Your task to perform on an android device: visit the assistant section in the google photos Image 0: 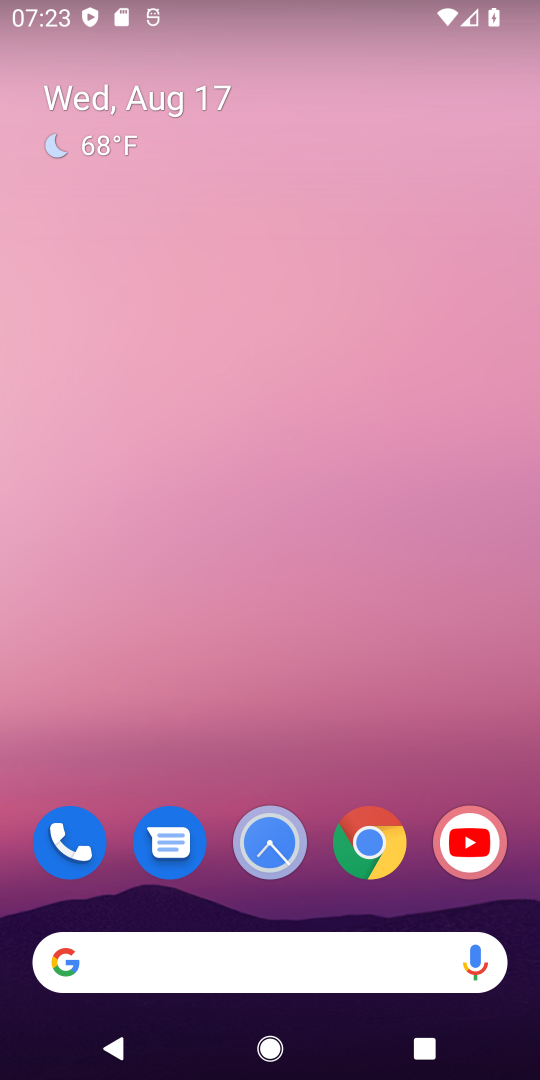
Step 0: drag from (262, 743) to (353, 0)
Your task to perform on an android device: visit the assistant section in the google photos Image 1: 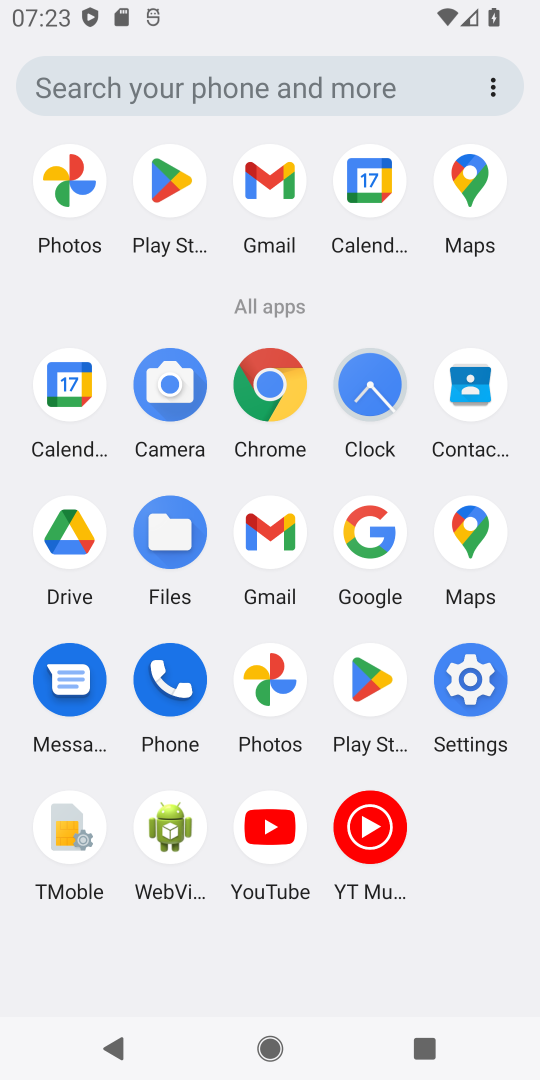
Step 1: click (269, 680)
Your task to perform on an android device: visit the assistant section in the google photos Image 2: 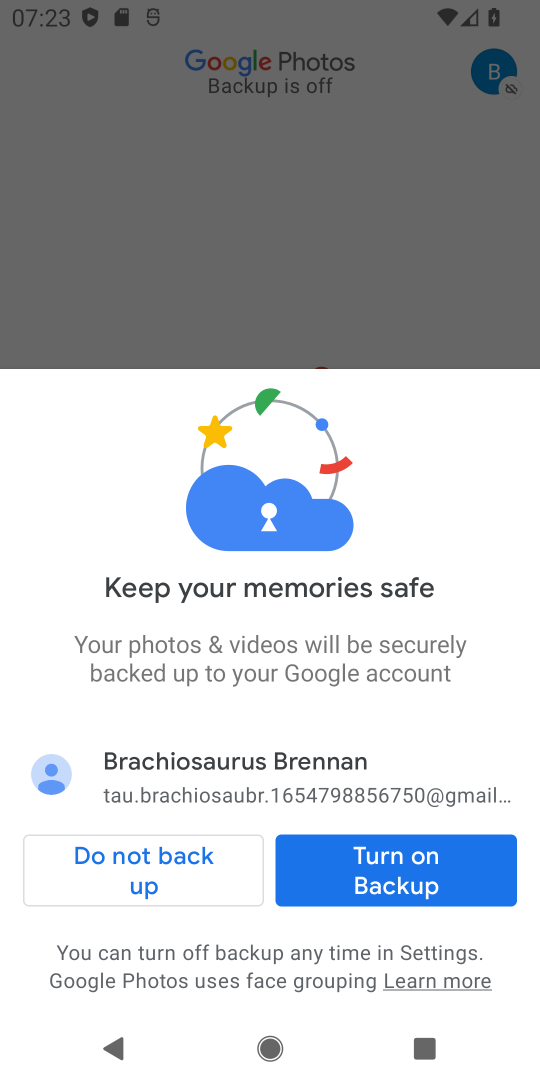
Step 2: click (402, 863)
Your task to perform on an android device: visit the assistant section in the google photos Image 3: 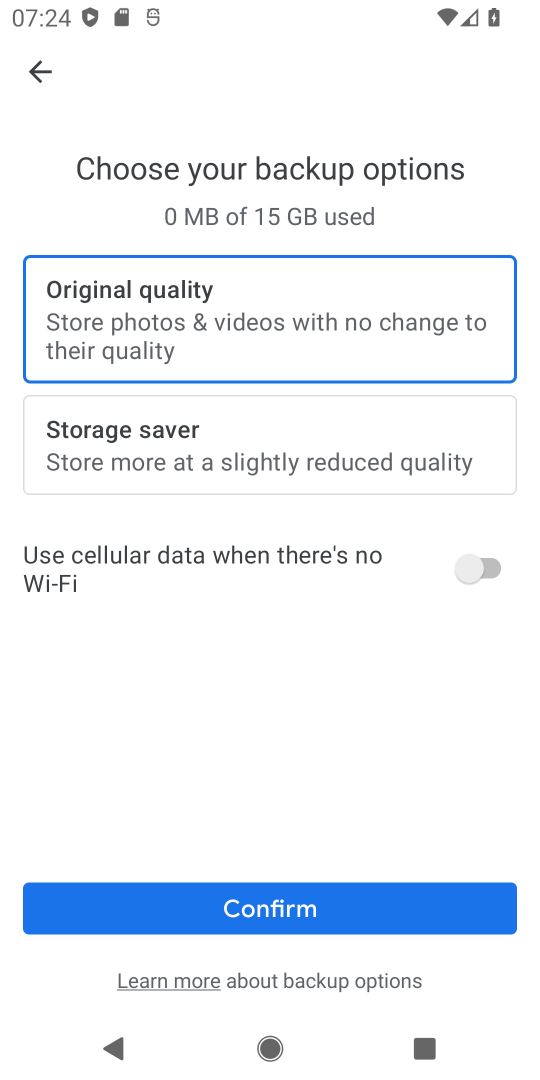
Step 3: click (404, 912)
Your task to perform on an android device: visit the assistant section in the google photos Image 4: 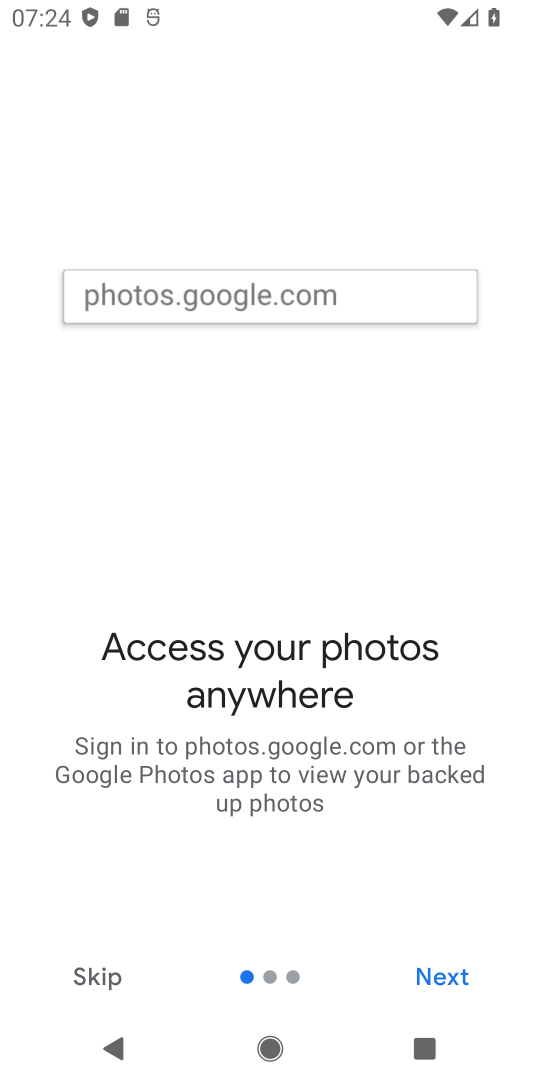
Step 4: click (438, 972)
Your task to perform on an android device: visit the assistant section in the google photos Image 5: 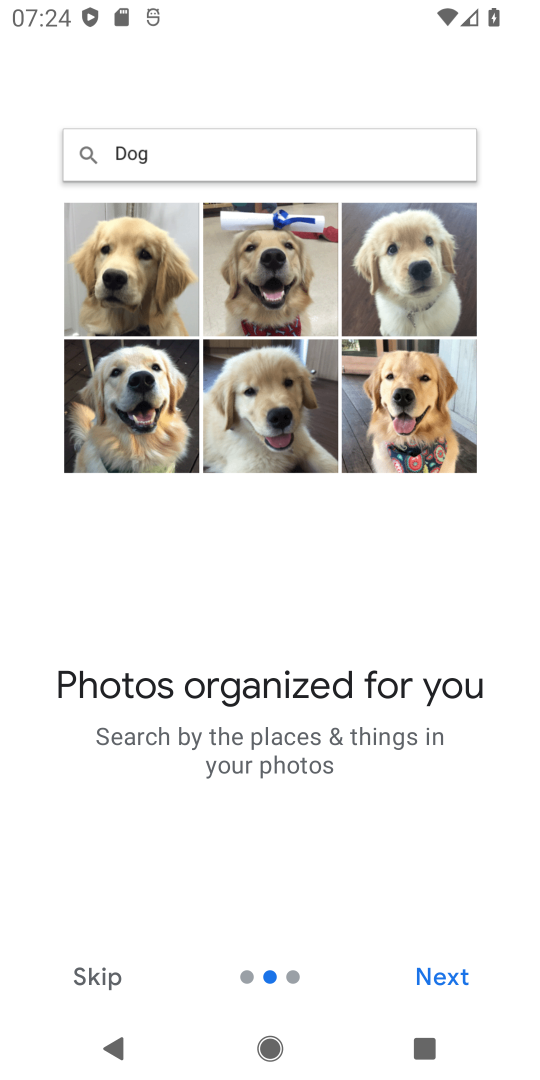
Step 5: click (438, 969)
Your task to perform on an android device: visit the assistant section in the google photos Image 6: 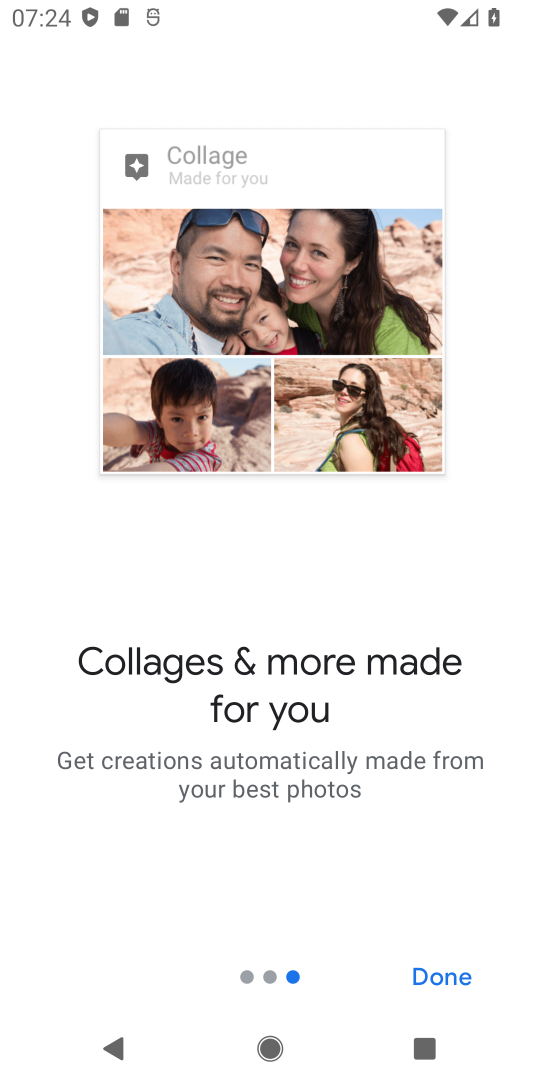
Step 6: click (438, 969)
Your task to perform on an android device: visit the assistant section in the google photos Image 7: 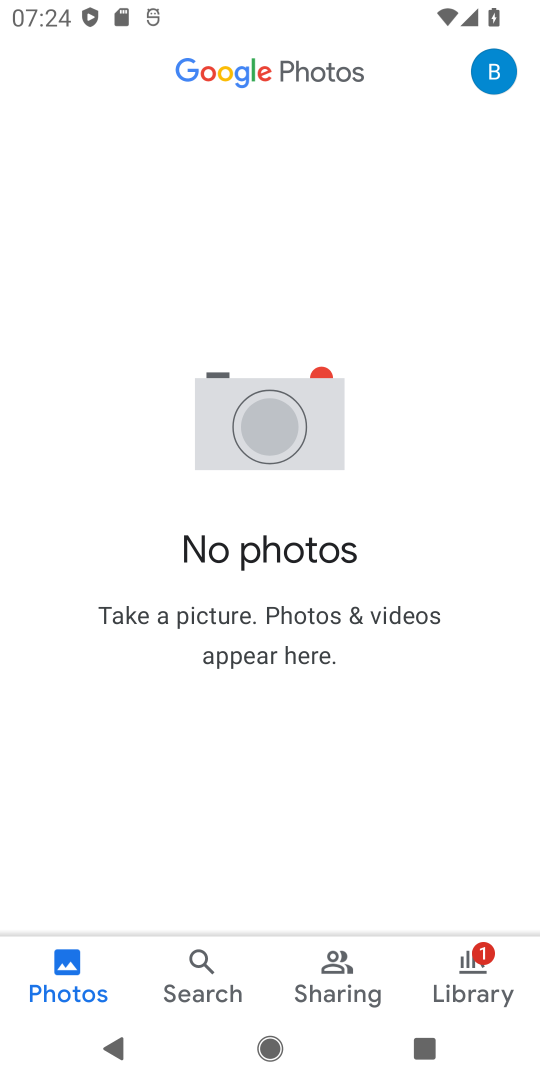
Step 7: click (484, 72)
Your task to perform on an android device: visit the assistant section in the google photos Image 8: 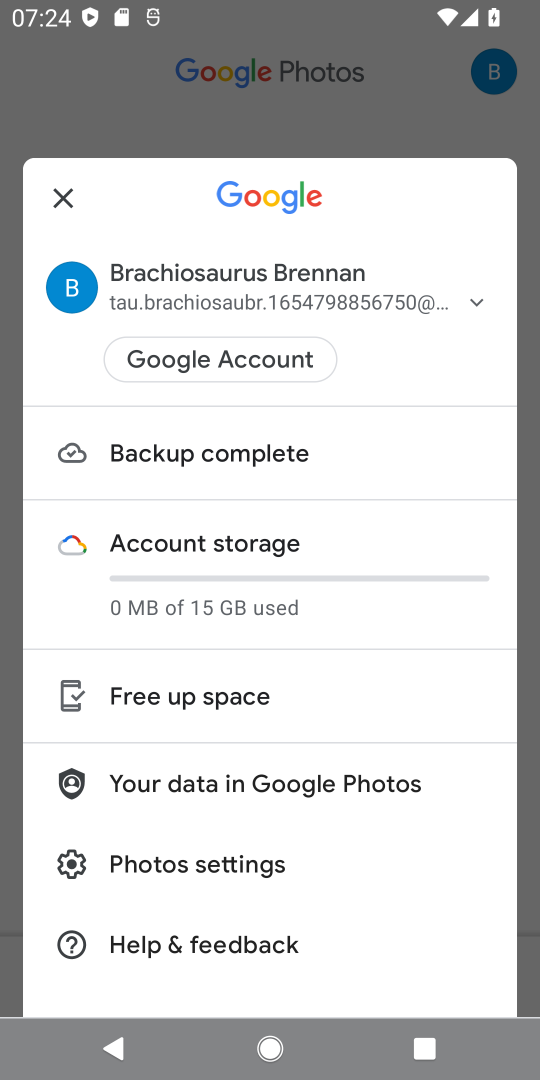
Step 8: click (63, 191)
Your task to perform on an android device: visit the assistant section in the google photos Image 9: 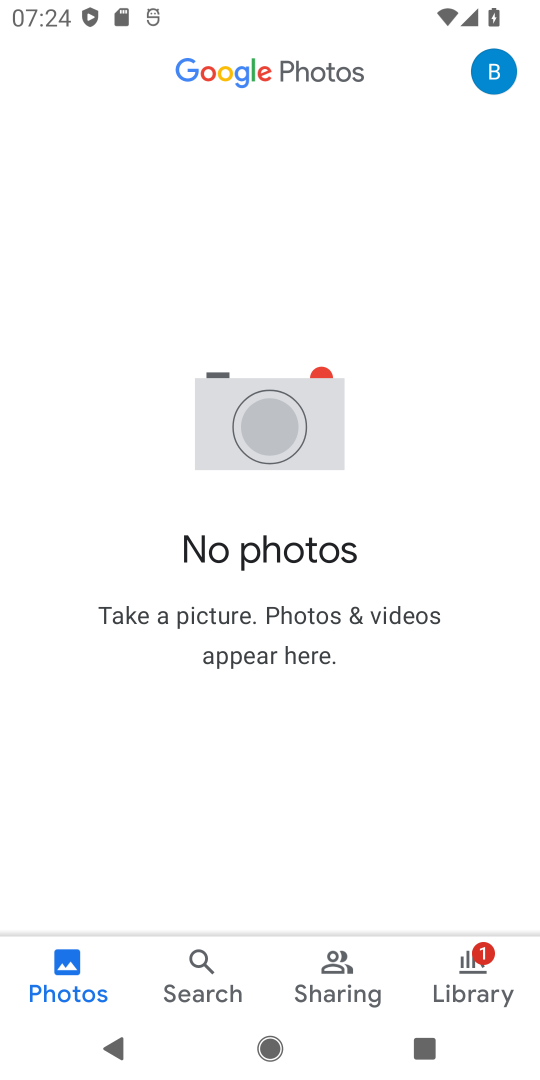
Step 9: click (207, 967)
Your task to perform on an android device: visit the assistant section in the google photos Image 10: 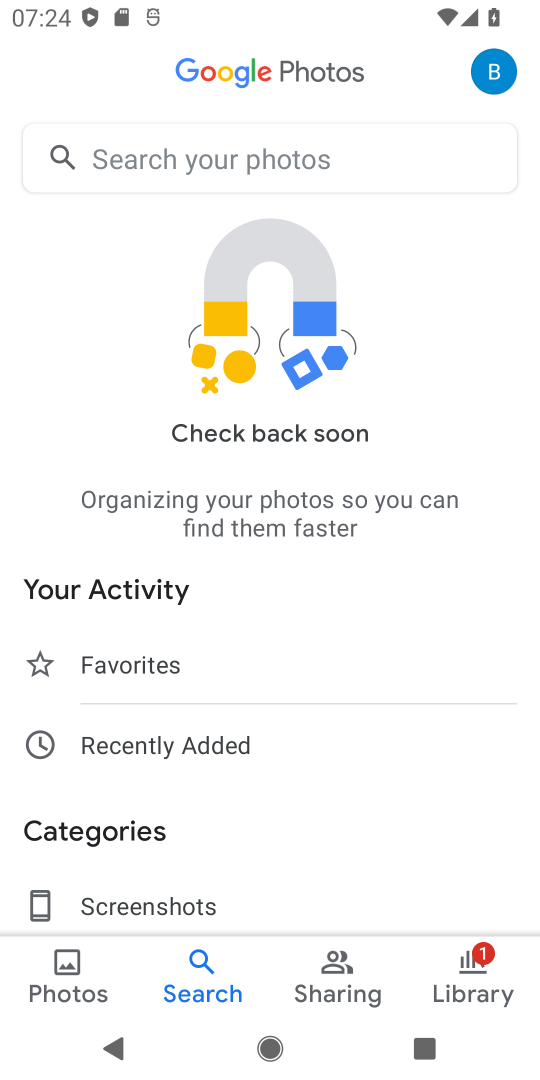
Step 10: drag from (420, 694) to (394, 169)
Your task to perform on an android device: visit the assistant section in the google photos Image 11: 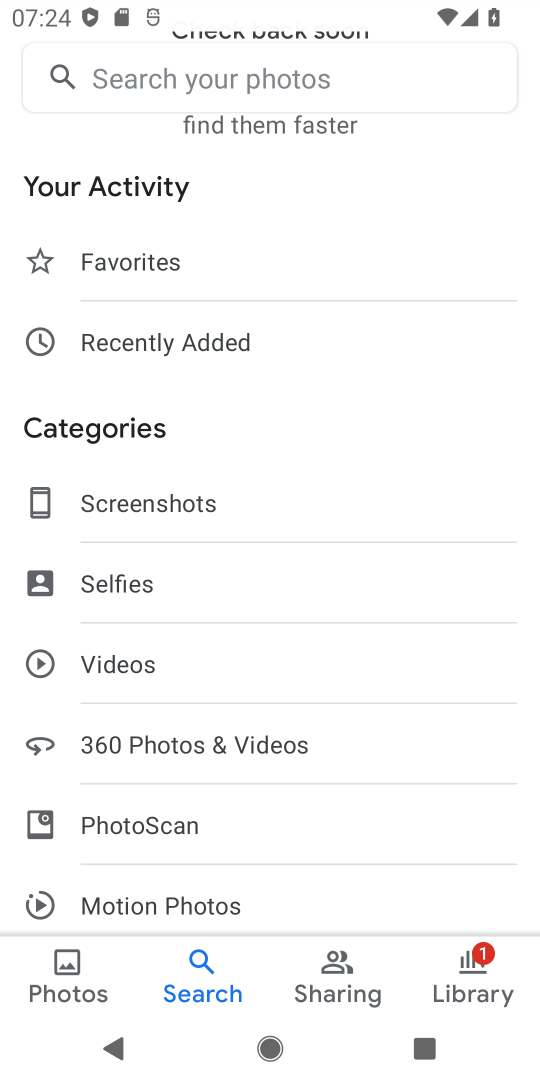
Step 11: drag from (243, 837) to (280, 202)
Your task to perform on an android device: visit the assistant section in the google photos Image 12: 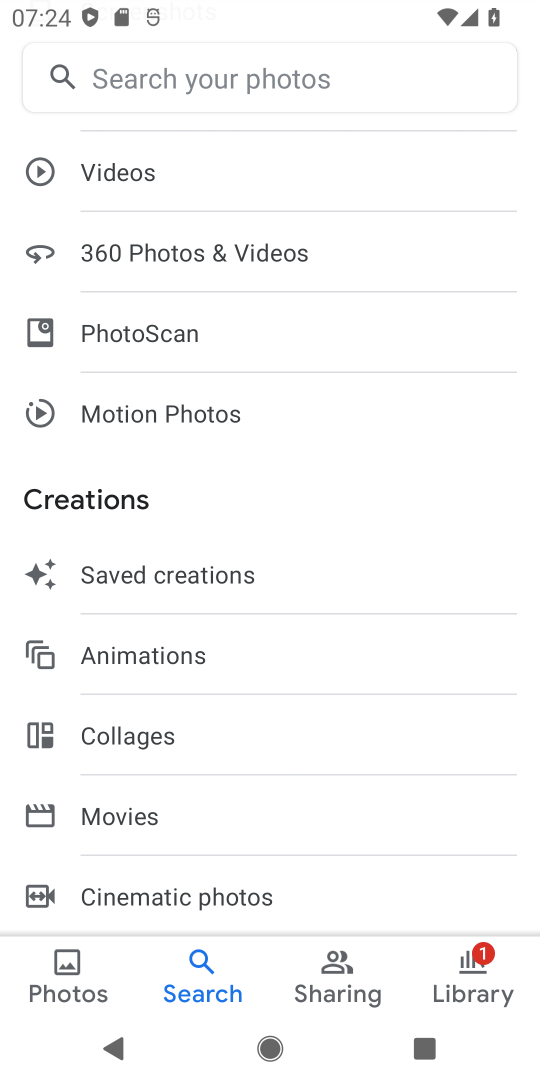
Step 12: drag from (281, 740) to (278, 269)
Your task to perform on an android device: visit the assistant section in the google photos Image 13: 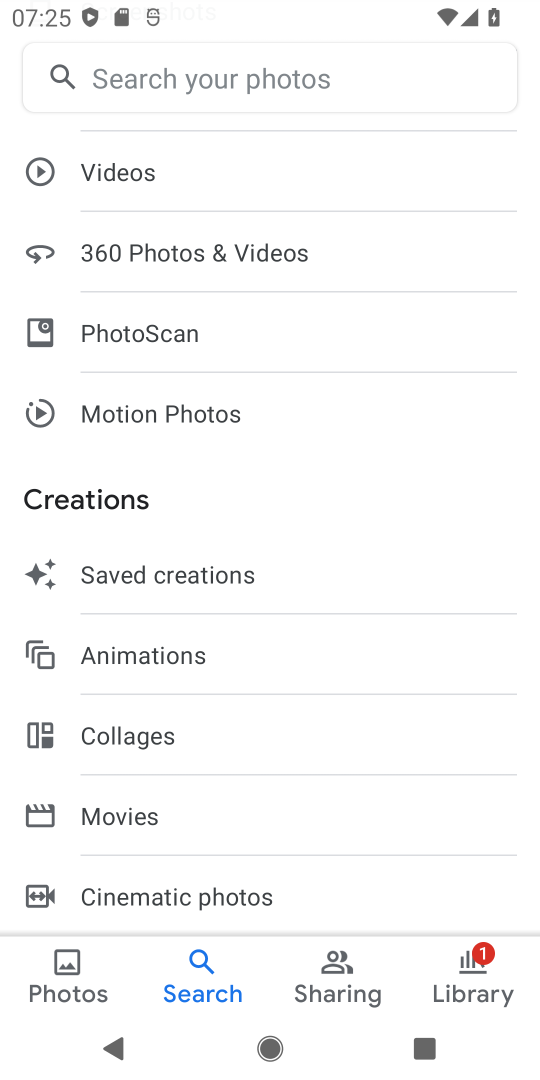
Step 13: click (268, 81)
Your task to perform on an android device: visit the assistant section in the google photos Image 14: 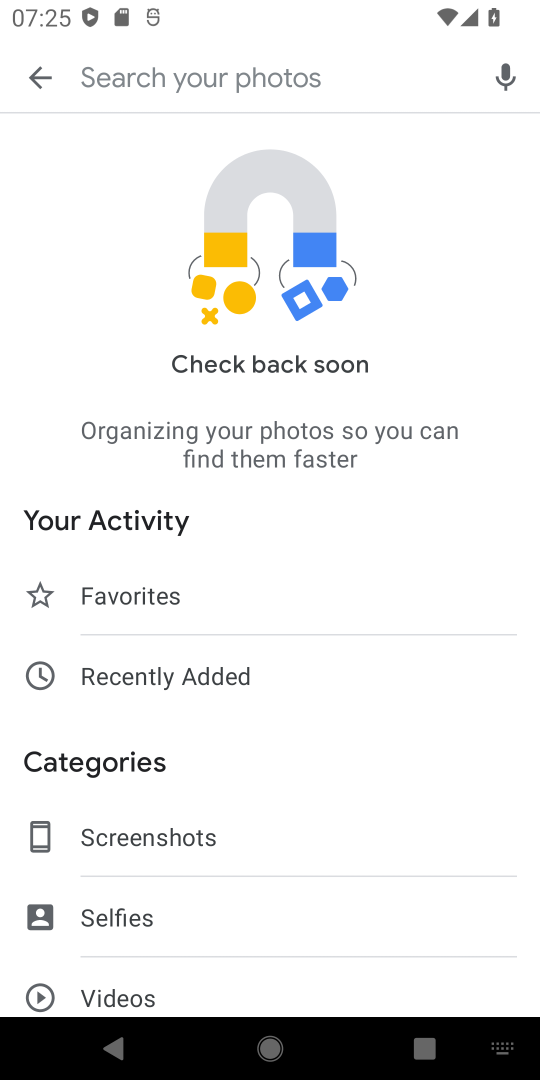
Step 14: type "assistant section"
Your task to perform on an android device: visit the assistant section in the google photos Image 15: 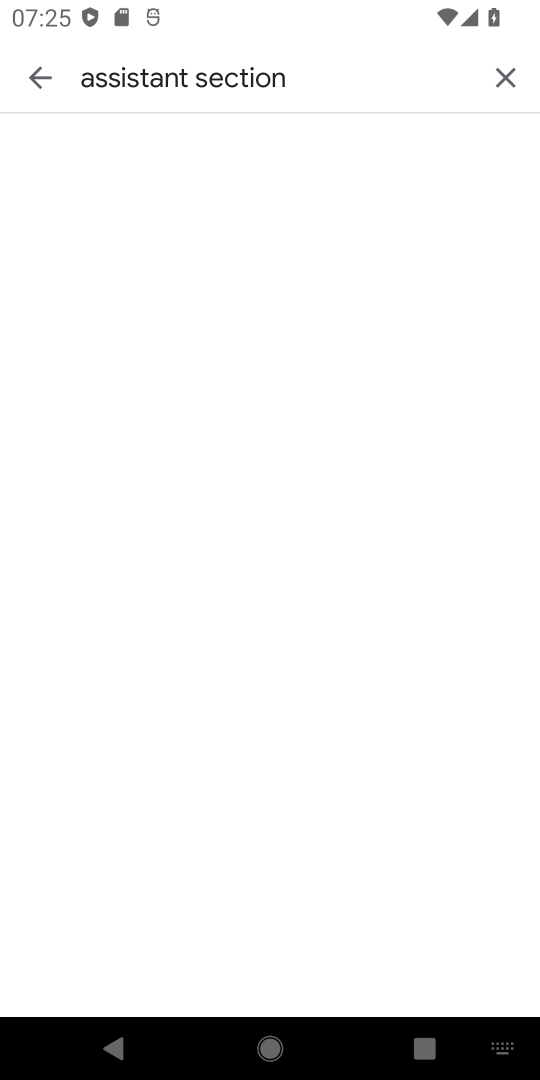
Step 15: click (40, 72)
Your task to perform on an android device: visit the assistant section in the google photos Image 16: 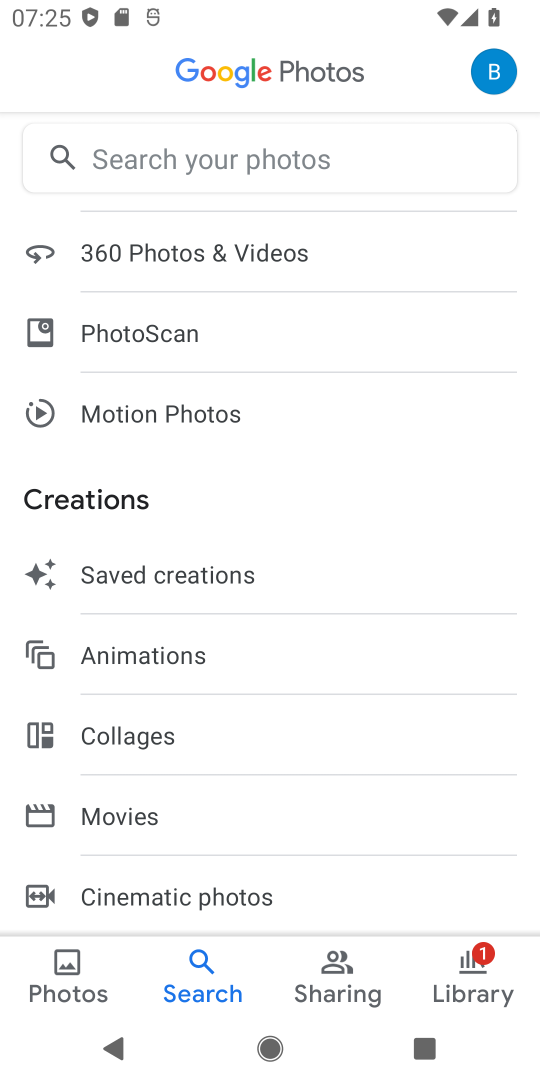
Step 16: task complete